Your task to perform on an android device: turn on sleep mode Image 0: 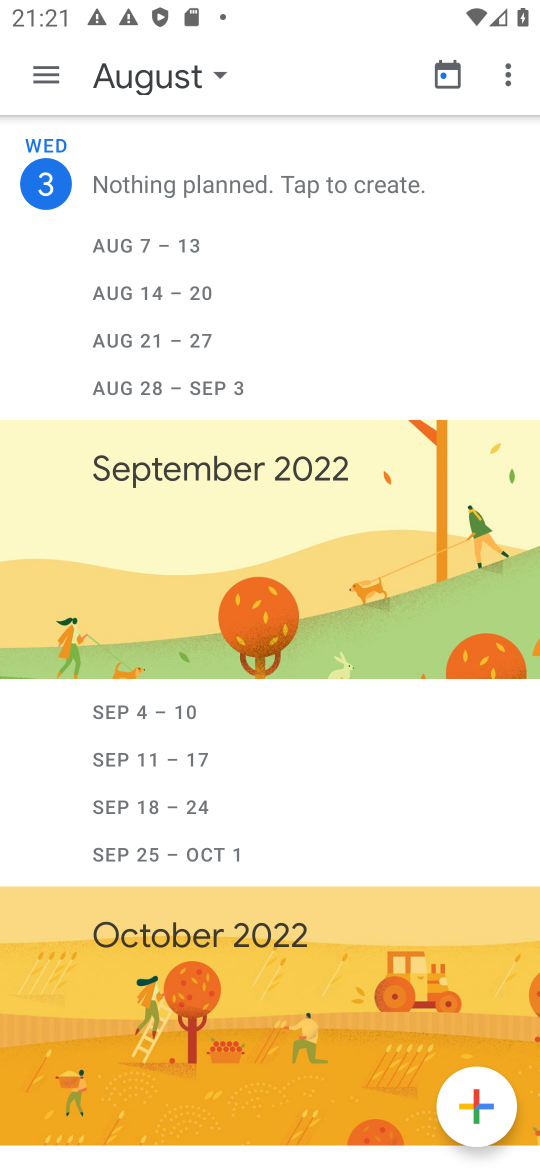
Step 0: press home button
Your task to perform on an android device: turn on sleep mode Image 1: 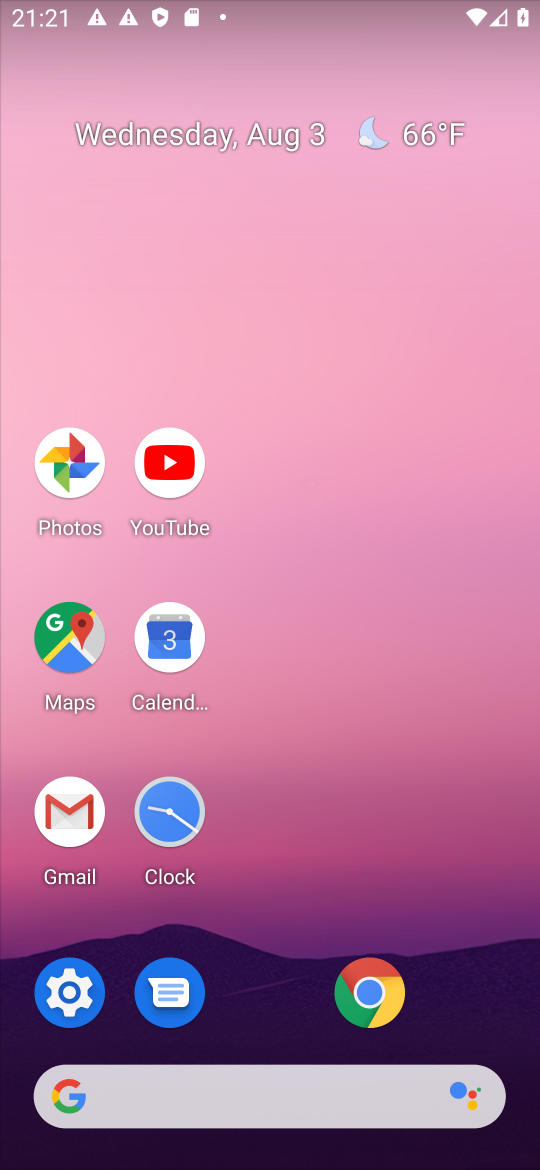
Step 1: click (61, 981)
Your task to perform on an android device: turn on sleep mode Image 2: 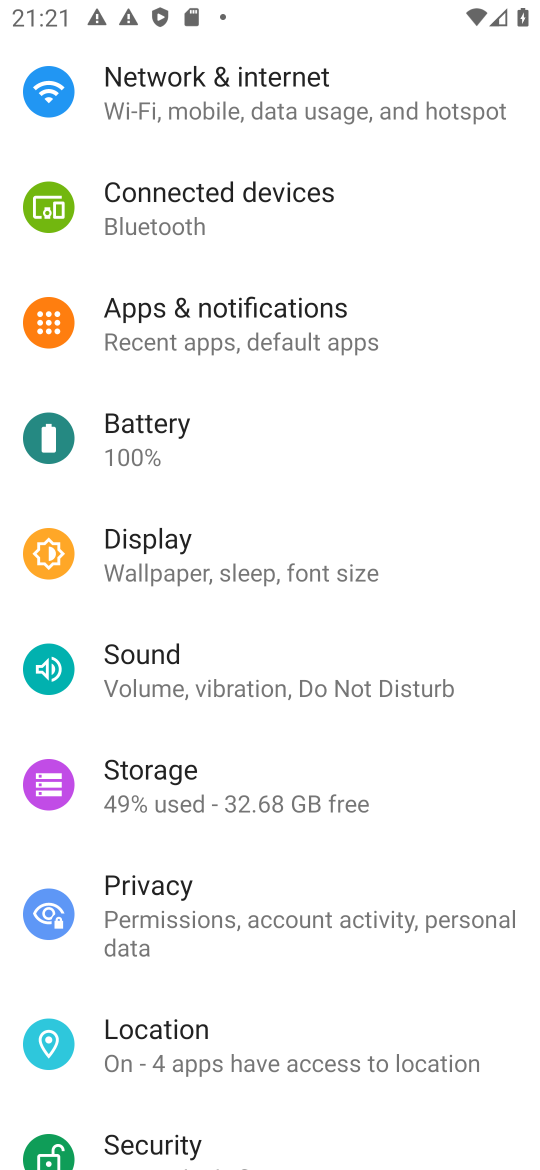
Step 2: click (203, 543)
Your task to perform on an android device: turn on sleep mode Image 3: 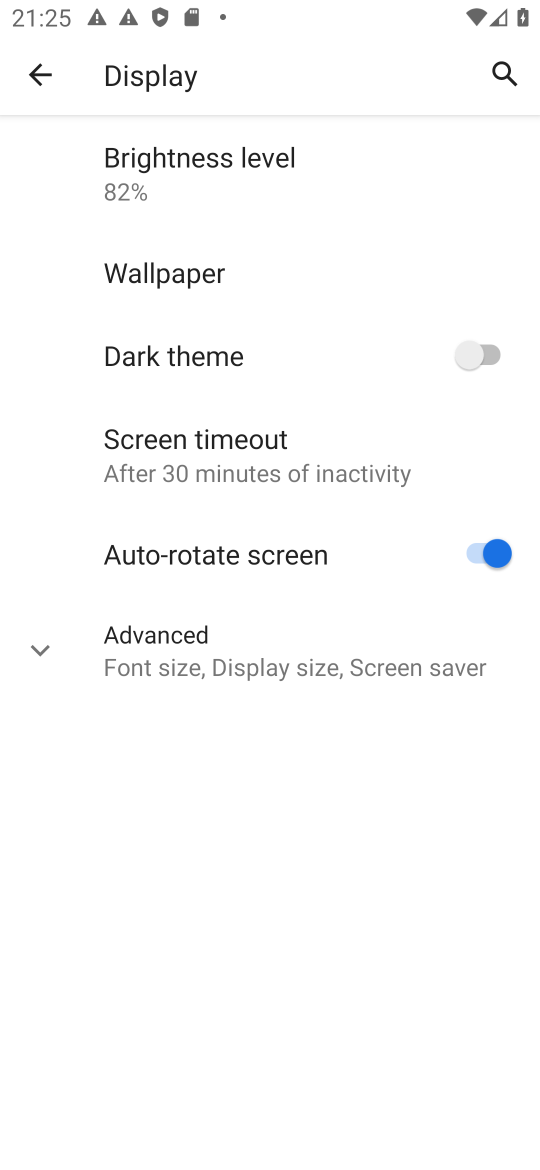
Step 3: task complete